Your task to perform on an android device: change notifications settings Image 0: 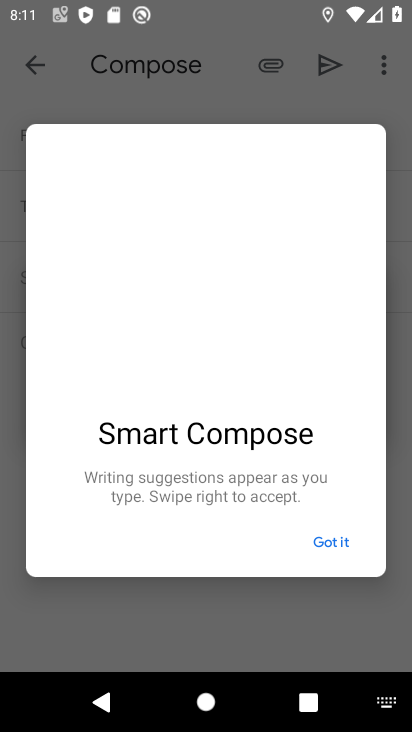
Step 0: press home button
Your task to perform on an android device: change notifications settings Image 1: 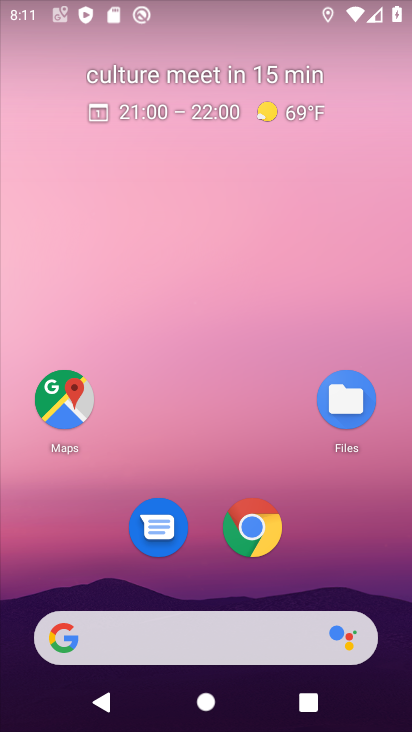
Step 1: drag from (313, 550) to (287, 147)
Your task to perform on an android device: change notifications settings Image 2: 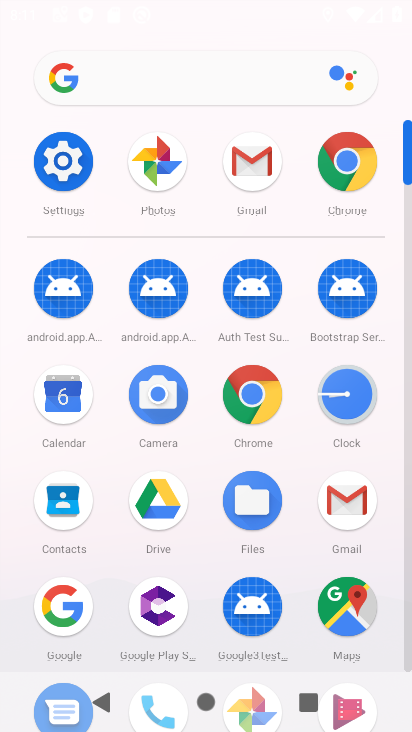
Step 2: click (62, 158)
Your task to perform on an android device: change notifications settings Image 3: 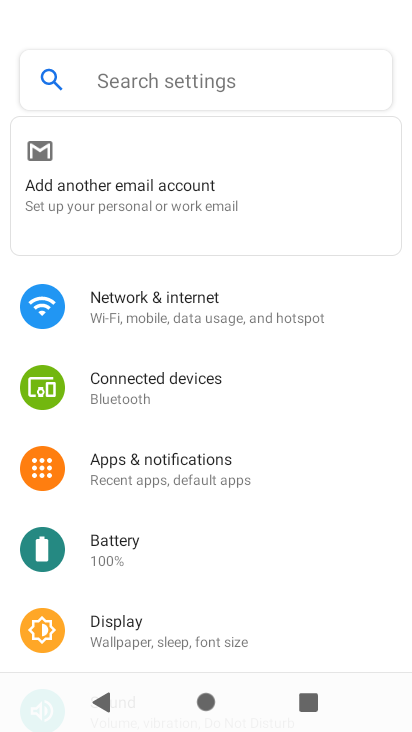
Step 3: click (195, 463)
Your task to perform on an android device: change notifications settings Image 4: 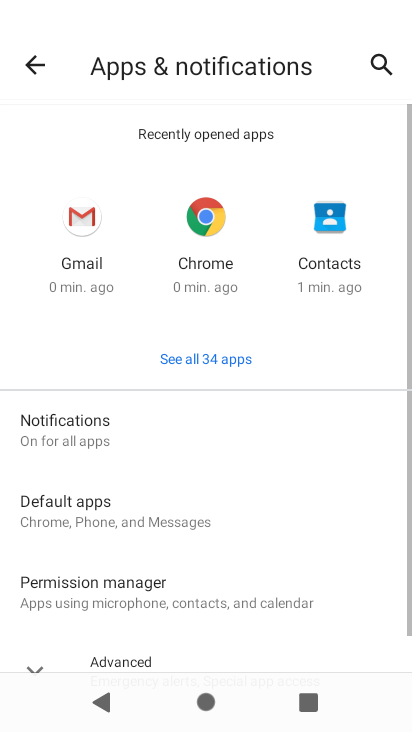
Step 4: click (81, 423)
Your task to perform on an android device: change notifications settings Image 5: 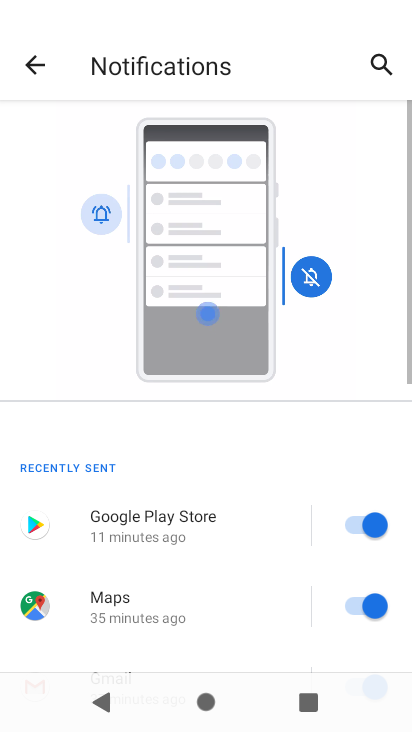
Step 5: drag from (228, 540) to (239, 1)
Your task to perform on an android device: change notifications settings Image 6: 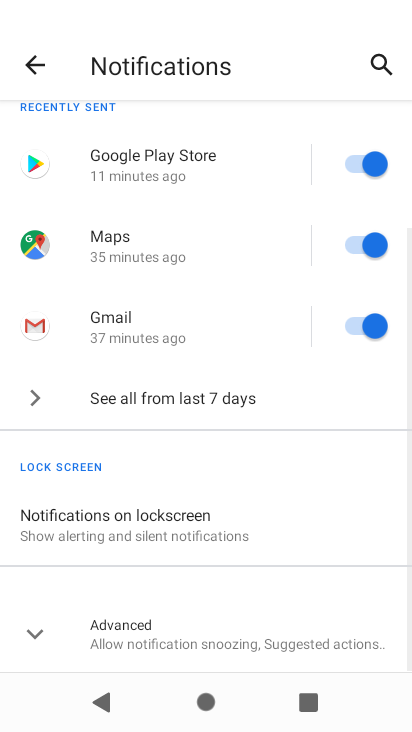
Step 6: click (196, 631)
Your task to perform on an android device: change notifications settings Image 7: 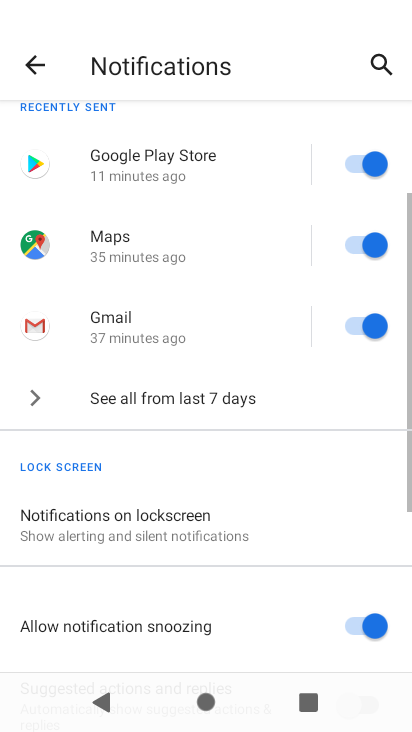
Step 7: drag from (257, 595) to (201, 152)
Your task to perform on an android device: change notifications settings Image 8: 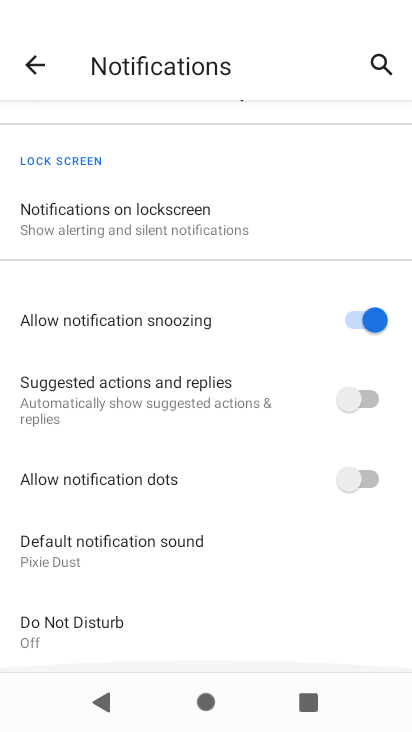
Step 8: click (366, 312)
Your task to perform on an android device: change notifications settings Image 9: 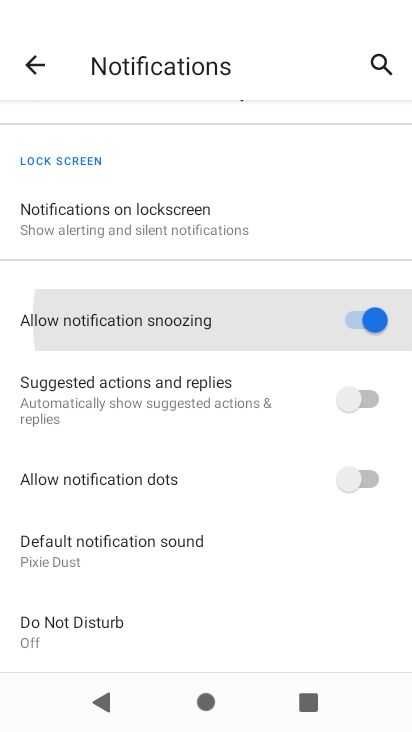
Step 9: click (370, 401)
Your task to perform on an android device: change notifications settings Image 10: 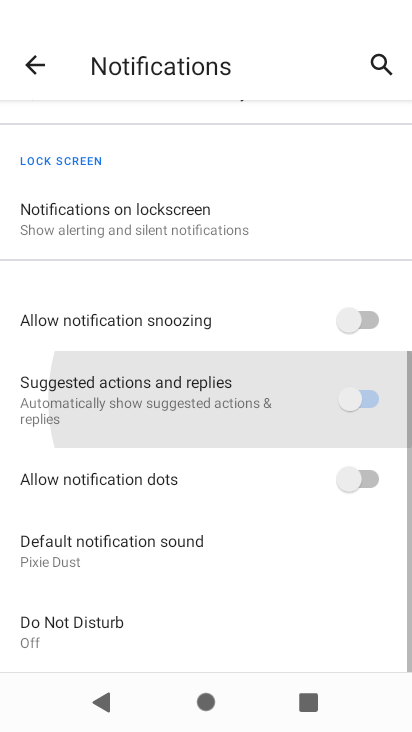
Step 10: click (368, 475)
Your task to perform on an android device: change notifications settings Image 11: 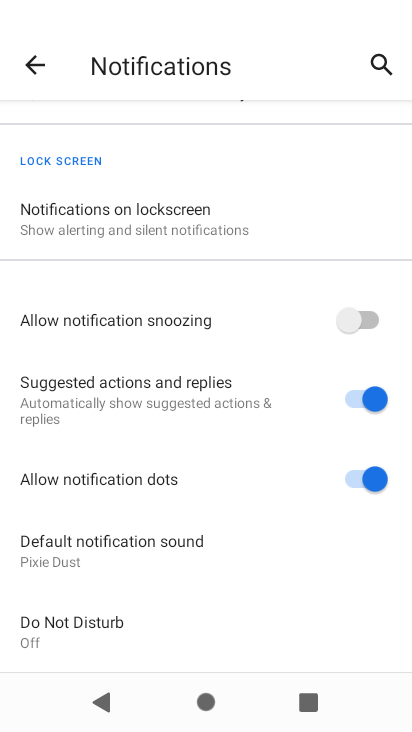
Step 11: task complete